Your task to perform on an android device: Is it going to rain this weekend? Image 0: 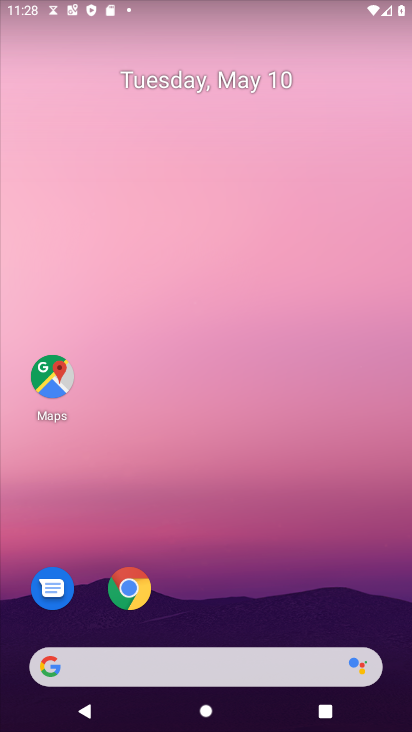
Step 0: drag from (278, 556) to (222, 168)
Your task to perform on an android device: Is it going to rain this weekend? Image 1: 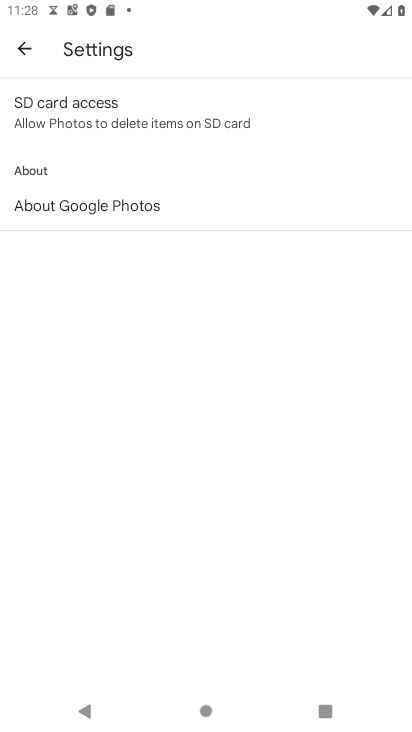
Step 1: press back button
Your task to perform on an android device: Is it going to rain this weekend? Image 2: 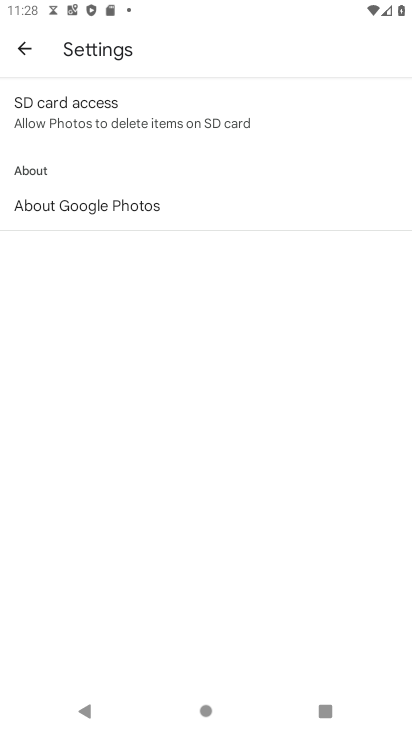
Step 2: press back button
Your task to perform on an android device: Is it going to rain this weekend? Image 3: 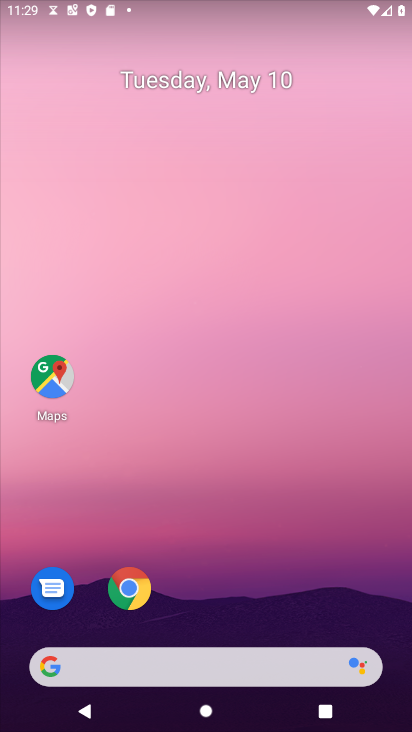
Step 3: drag from (7, 222) to (409, 335)
Your task to perform on an android device: Is it going to rain this weekend? Image 4: 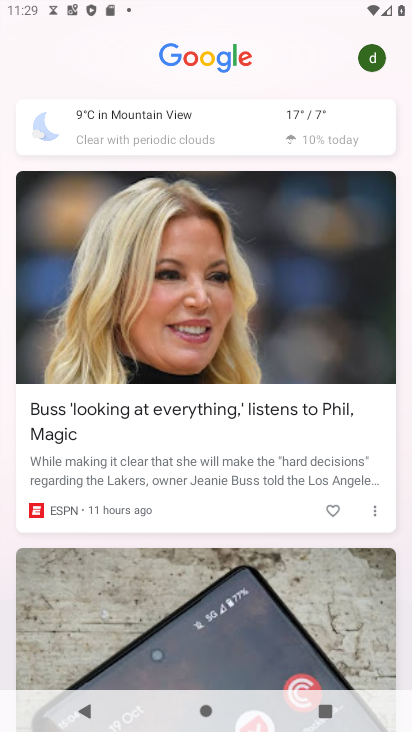
Step 4: click (160, 117)
Your task to perform on an android device: Is it going to rain this weekend? Image 5: 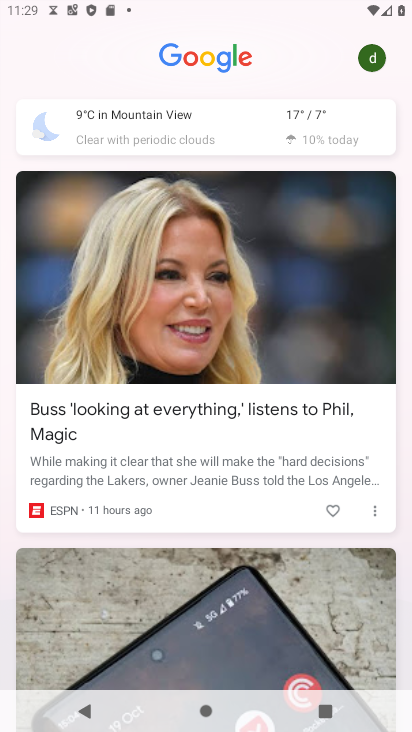
Step 5: click (170, 123)
Your task to perform on an android device: Is it going to rain this weekend? Image 6: 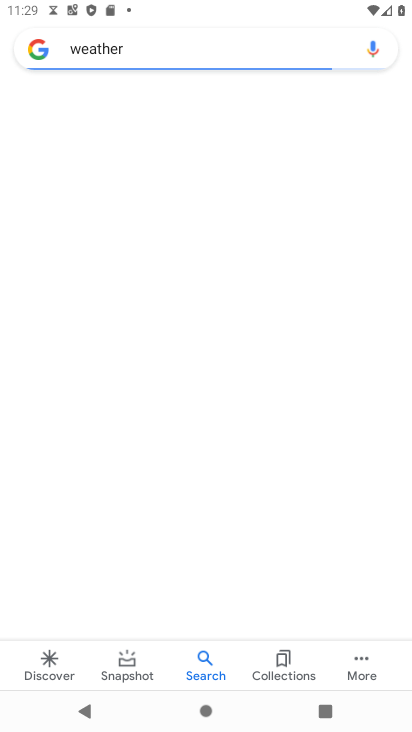
Step 6: click (173, 120)
Your task to perform on an android device: Is it going to rain this weekend? Image 7: 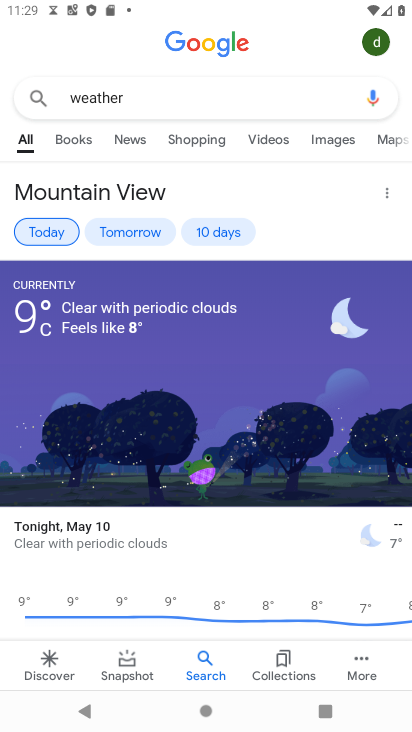
Step 7: click (217, 219)
Your task to perform on an android device: Is it going to rain this weekend? Image 8: 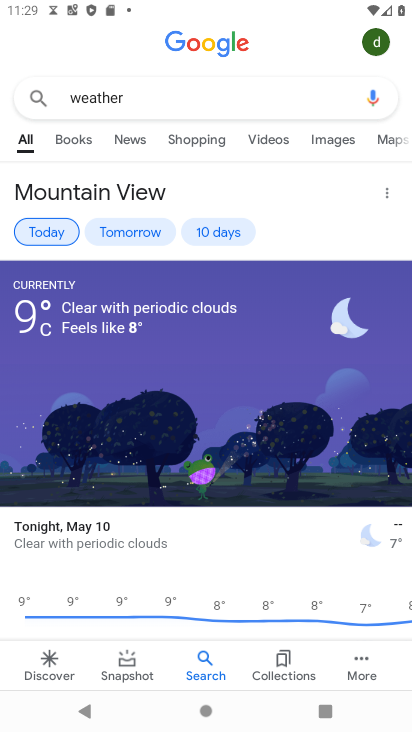
Step 8: click (218, 222)
Your task to perform on an android device: Is it going to rain this weekend? Image 9: 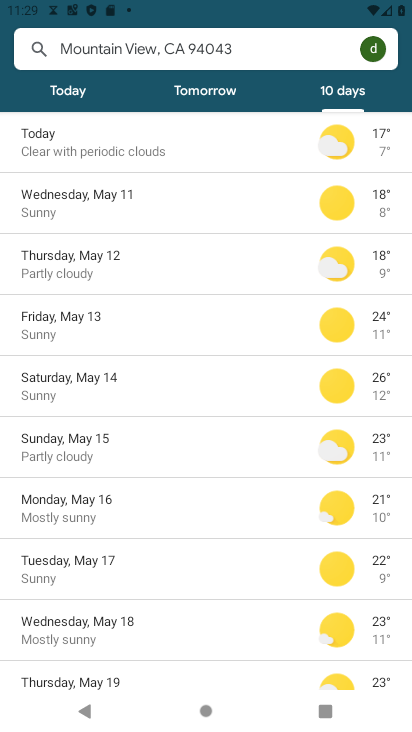
Step 9: task complete